Your task to perform on an android device: Open Wikipedia Image 0: 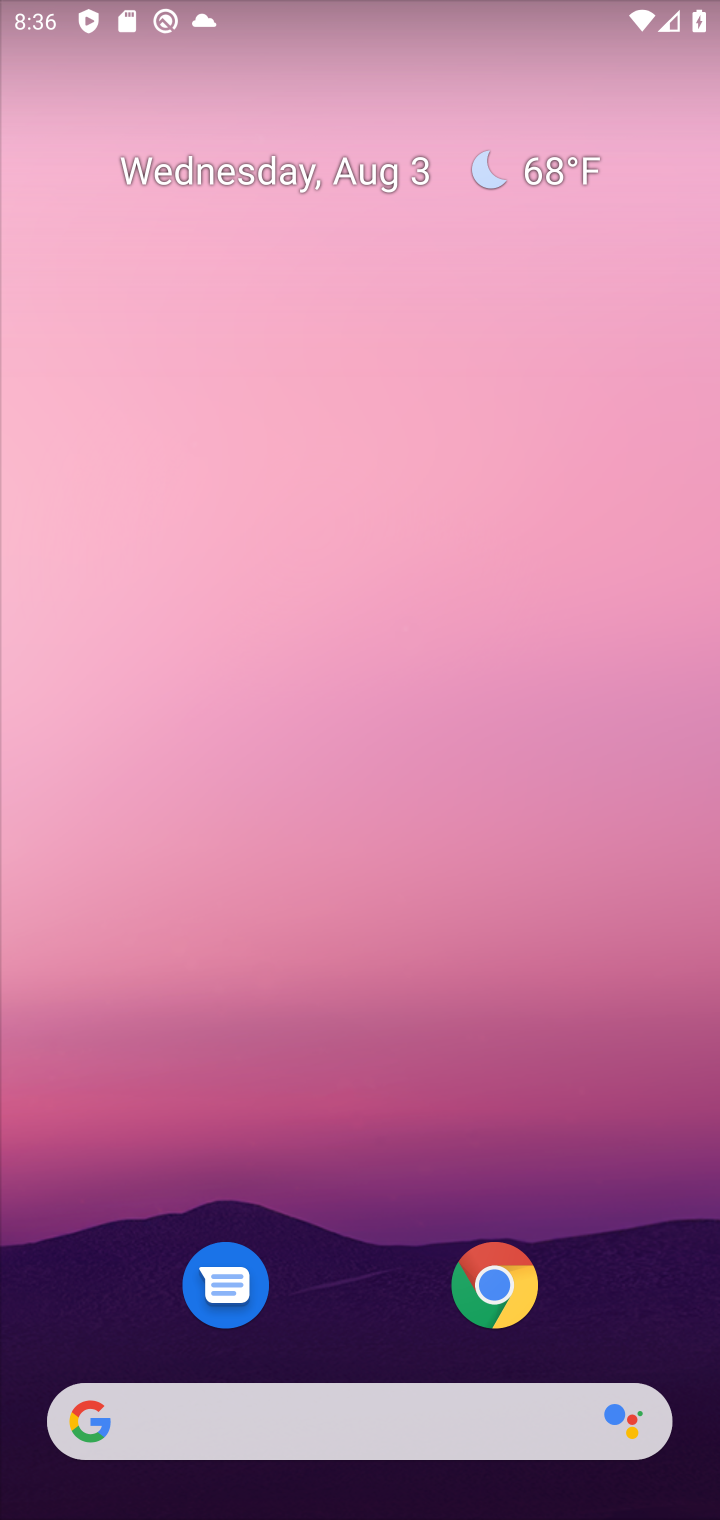
Step 0: click (501, 1294)
Your task to perform on an android device: Open Wikipedia Image 1: 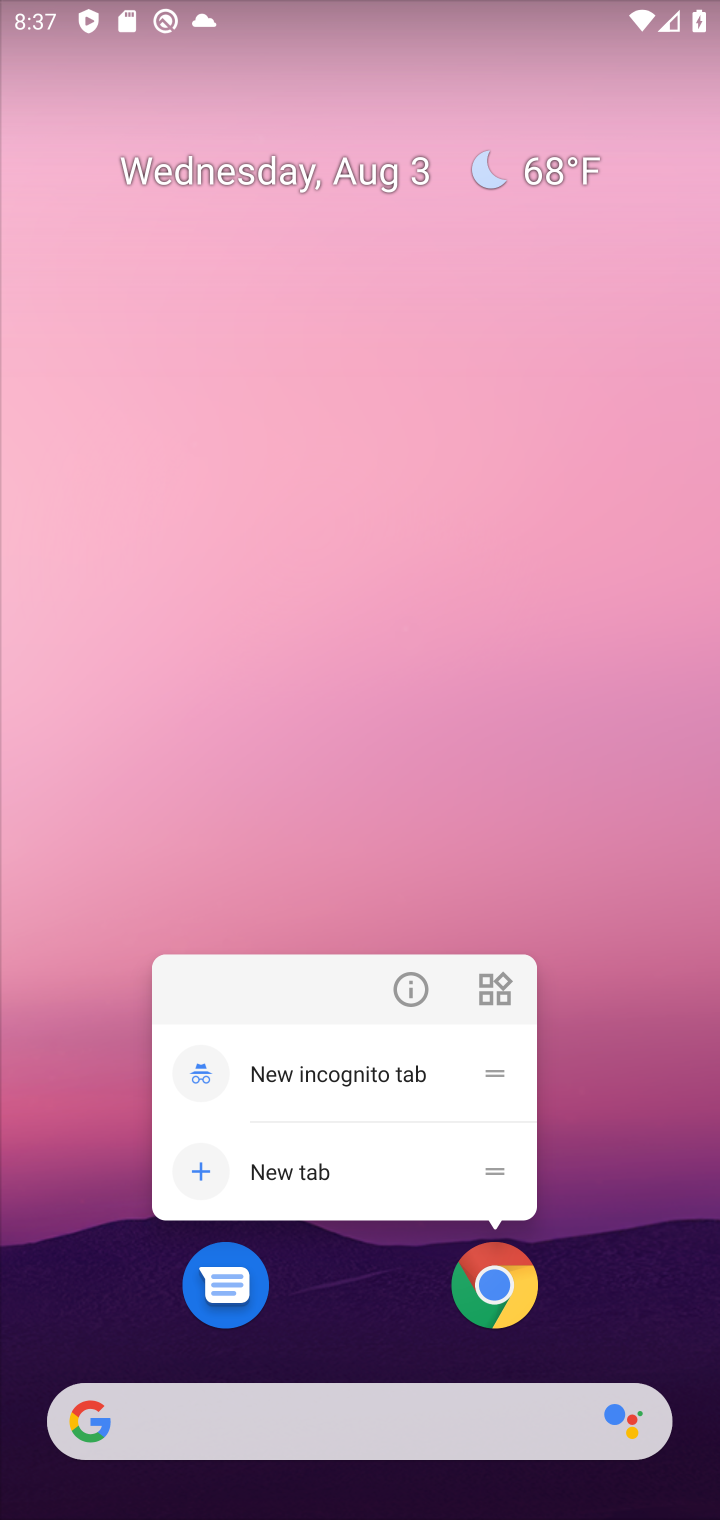
Step 1: click (488, 1331)
Your task to perform on an android device: Open Wikipedia Image 2: 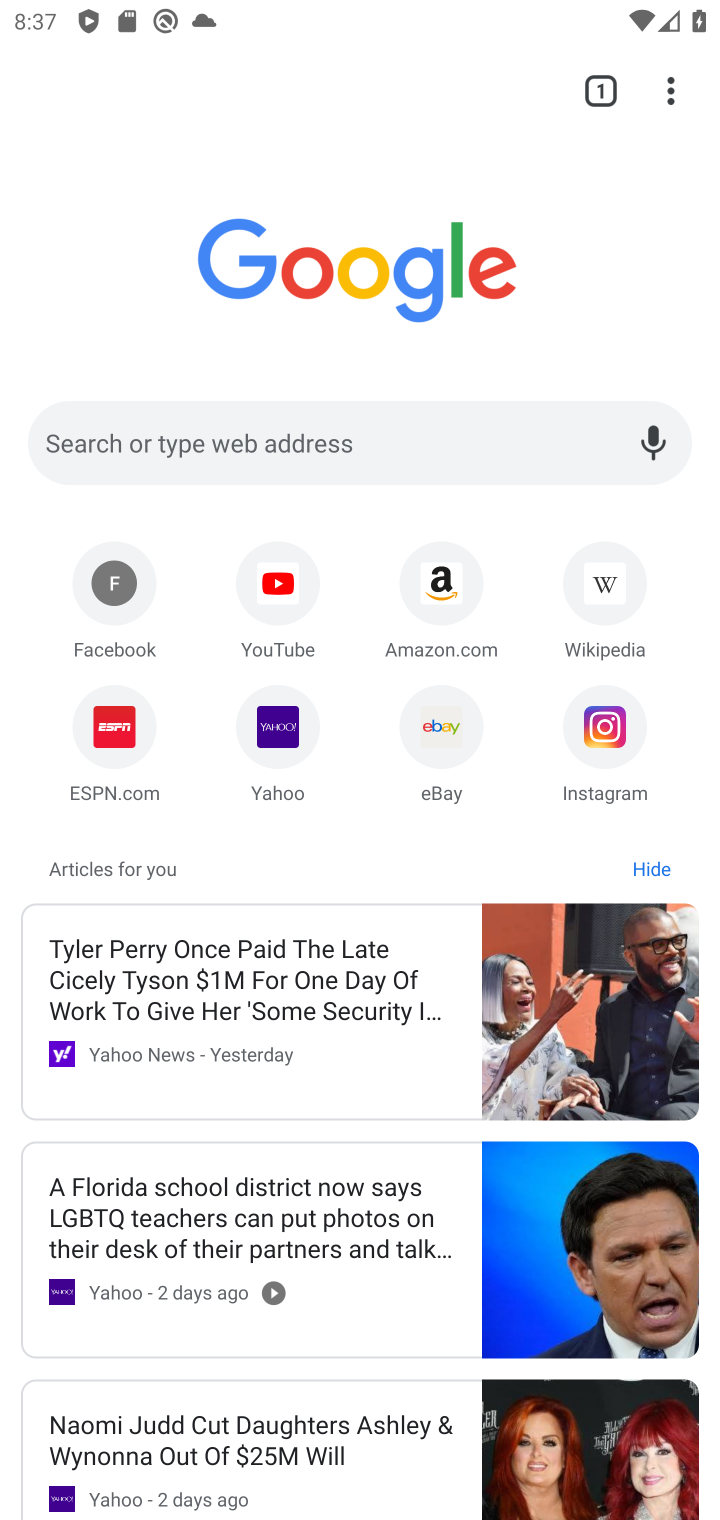
Step 2: click (604, 592)
Your task to perform on an android device: Open Wikipedia Image 3: 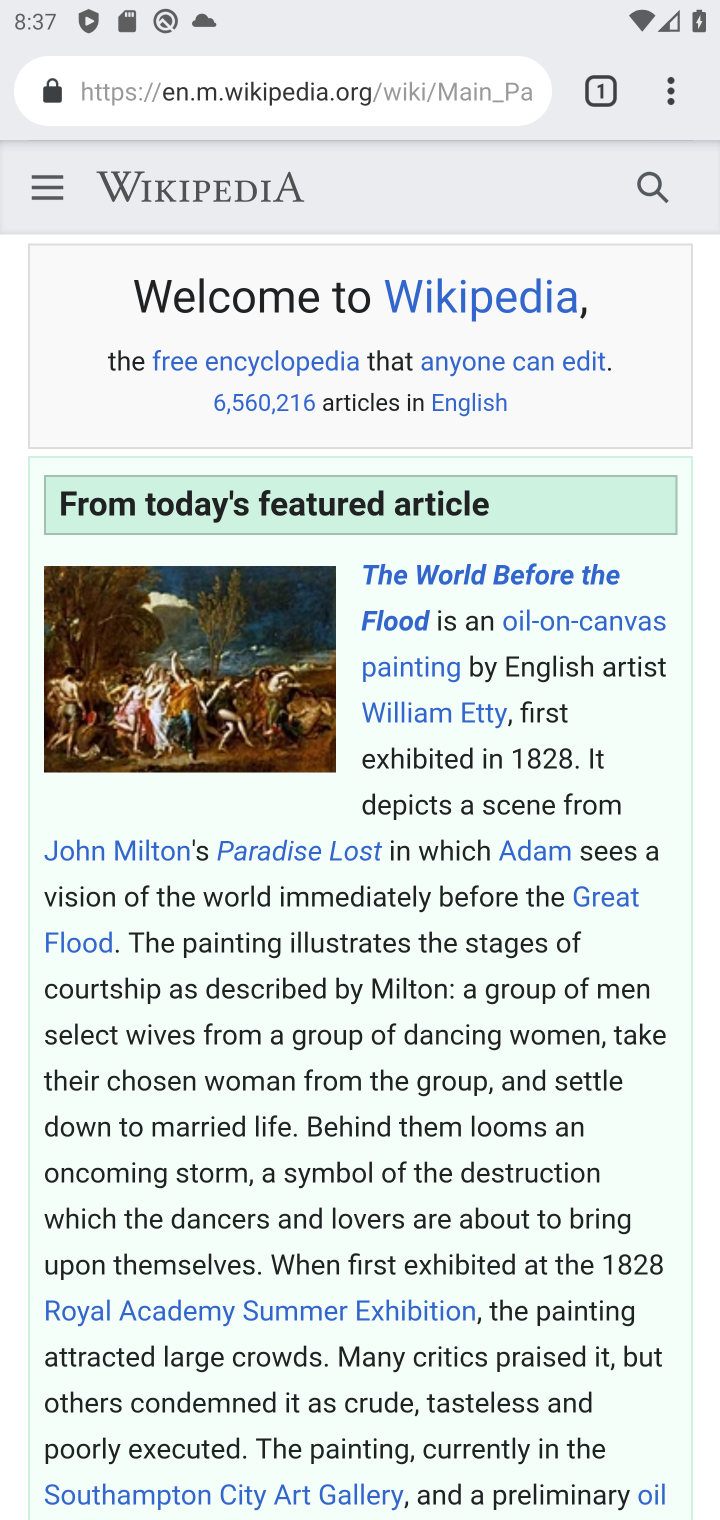
Step 3: task complete